Your task to perform on an android device: Open display settings Image 0: 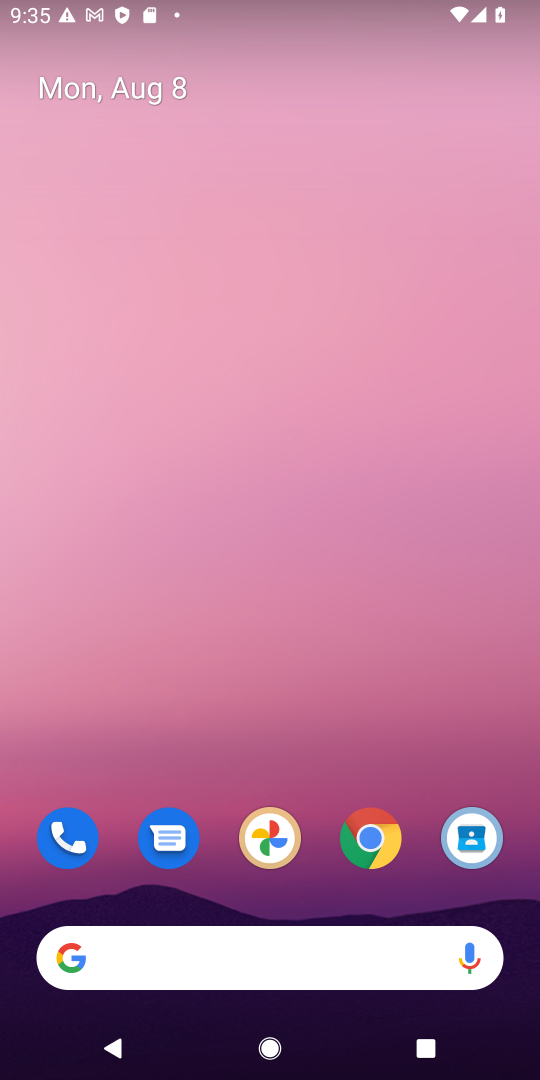
Step 0: drag from (307, 875) to (421, 63)
Your task to perform on an android device: Open display settings Image 1: 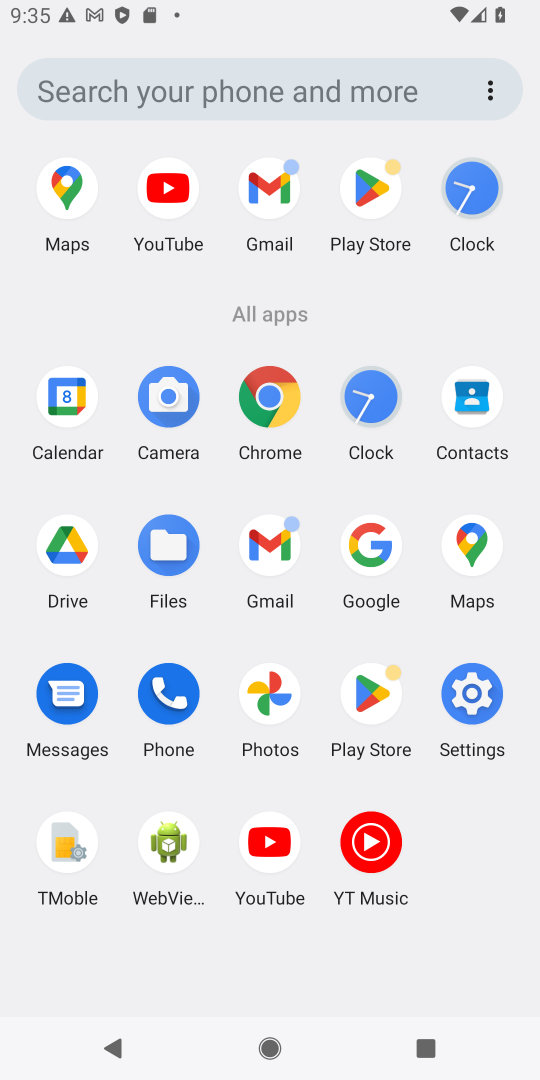
Step 1: click (488, 691)
Your task to perform on an android device: Open display settings Image 2: 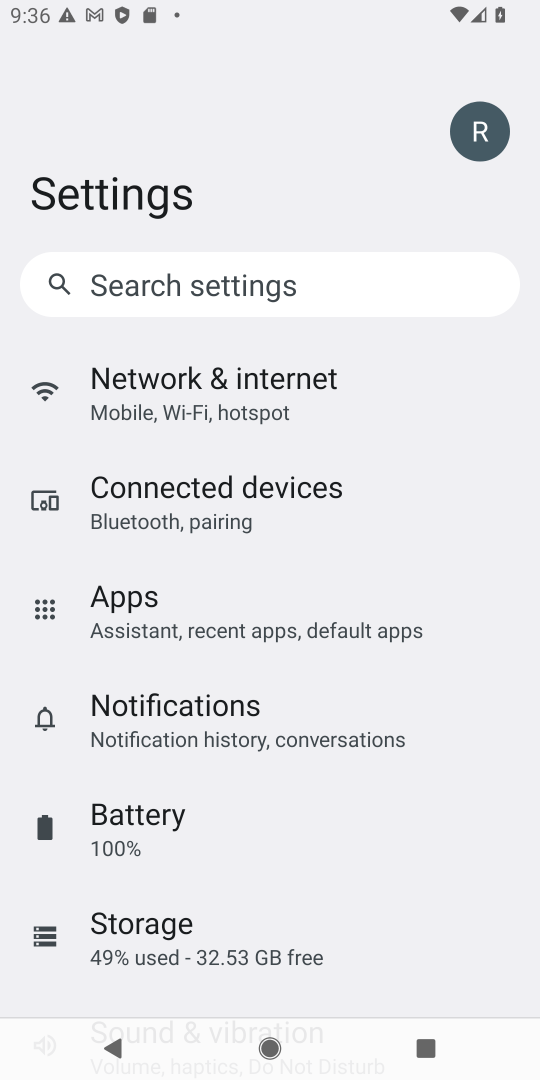
Step 2: drag from (294, 884) to (335, 357)
Your task to perform on an android device: Open display settings Image 3: 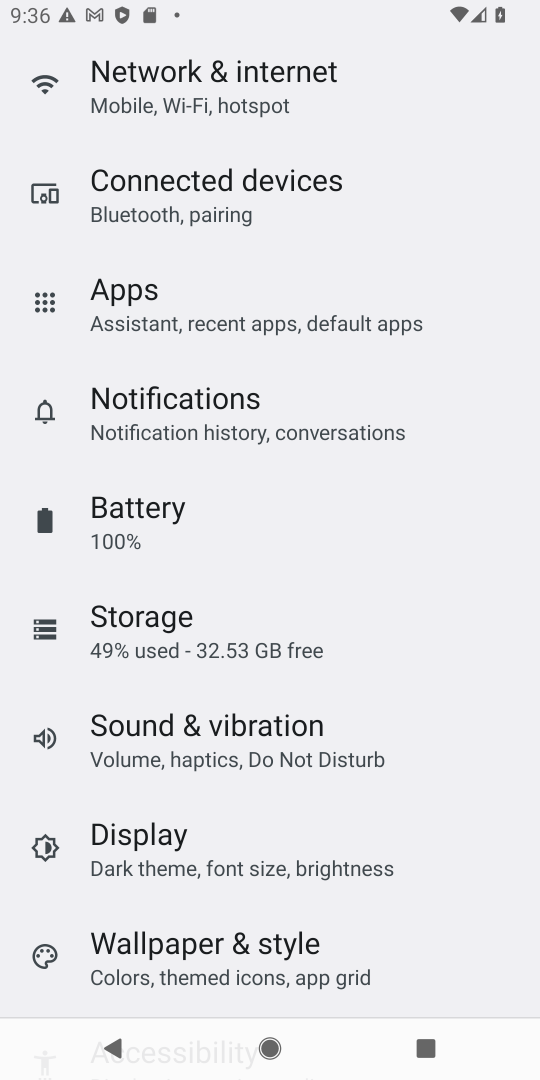
Step 3: click (121, 843)
Your task to perform on an android device: Open display settings Image 4: 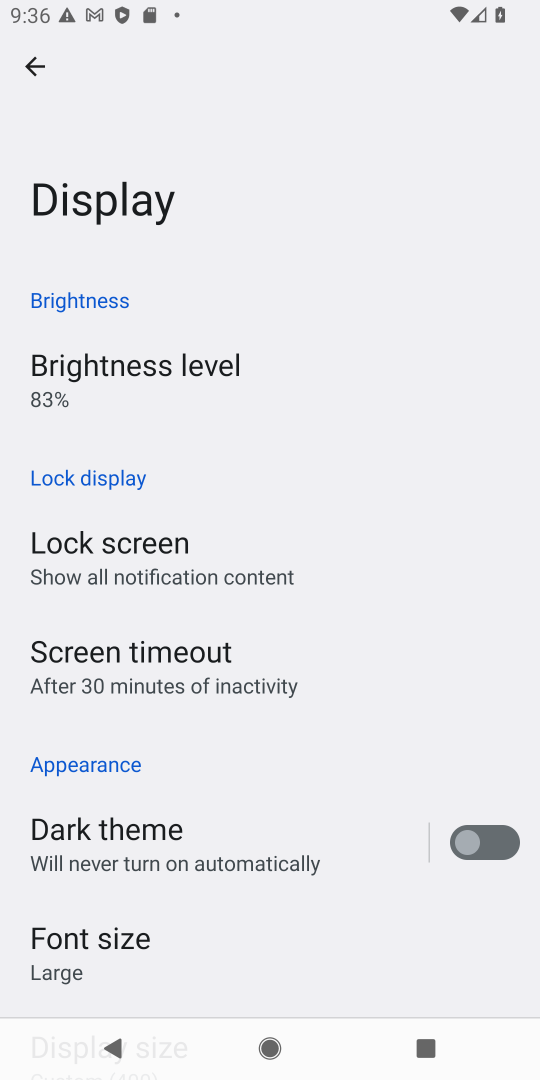
Step 4: task complete